Your task to perform on an android device: turn off sleep mode Image 0: 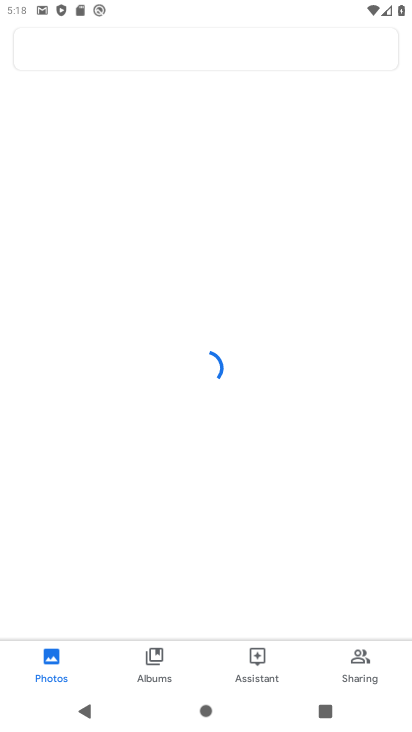
Step 0: press home button
Your task to perform on an android device: turn off sleep mode Image 1: 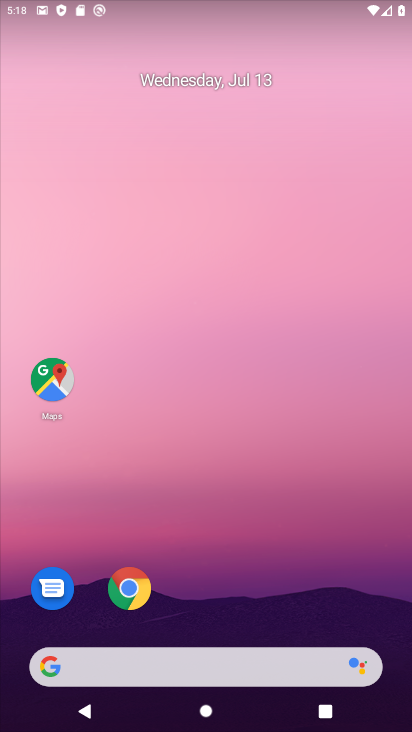
Step 1: drag from (217, 414) to (106, 3)
Your task to perform on an android device: turn off sleep mode Image 2: 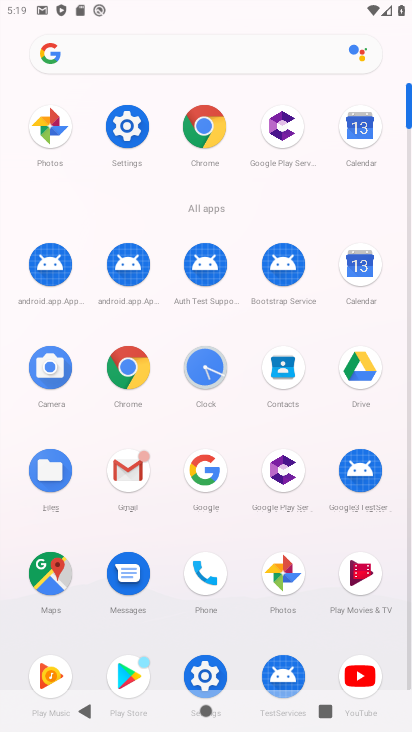
Step 2: click (122, 137)
Your task to perform on an android device: turn off sleep mode Image 3: 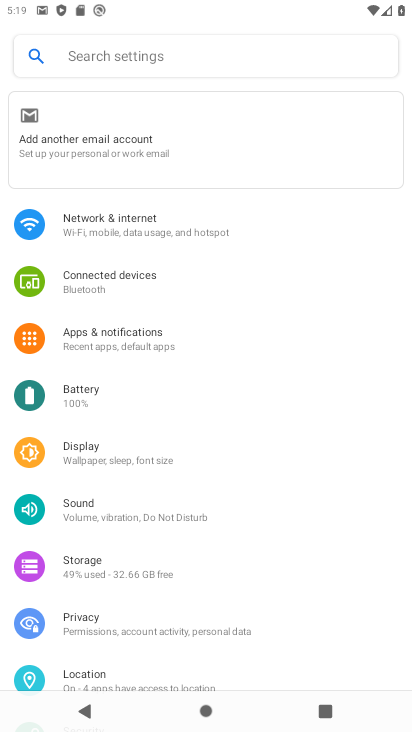
Step 3: task complete